Your task to perform on an android device: Open Youtube and go to "Your channel" Image 0: 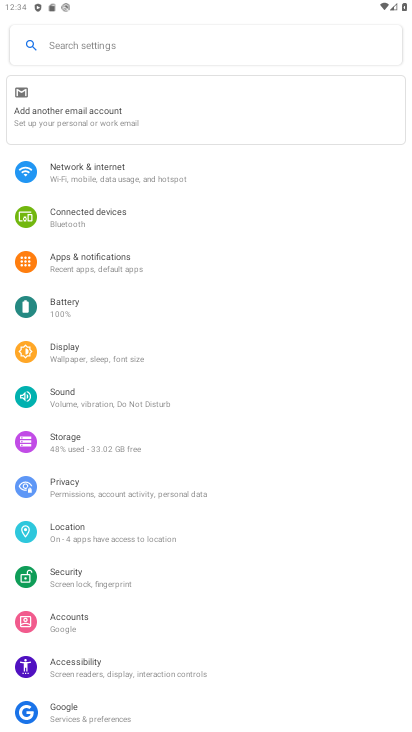
Step 0: press home button
Your task to perform on an android device: Open Youtube and go to "Your channel" Image 1: 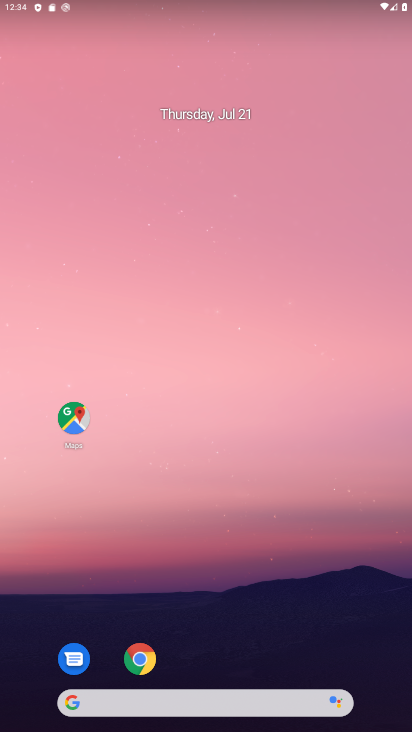
Step 1: drag from (176, 701) to (369, 22)
Your task to perform on an android device: Open Youtube and go to "Your channel" Image 2: 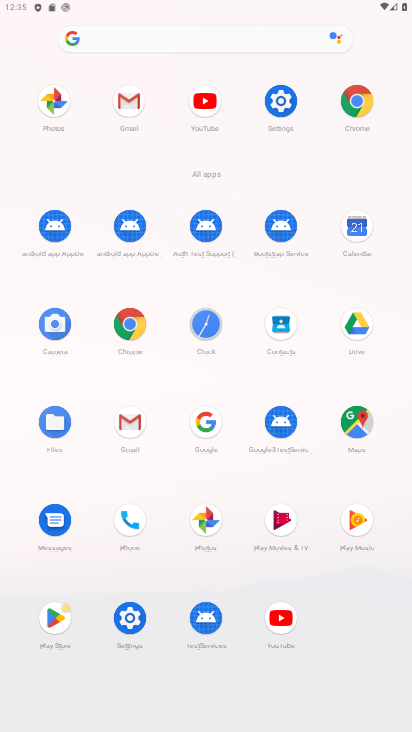
Step 2: click (202, 98)
Your task to perform on an android device: Open Youtube and go to "Your channel" Image 3: 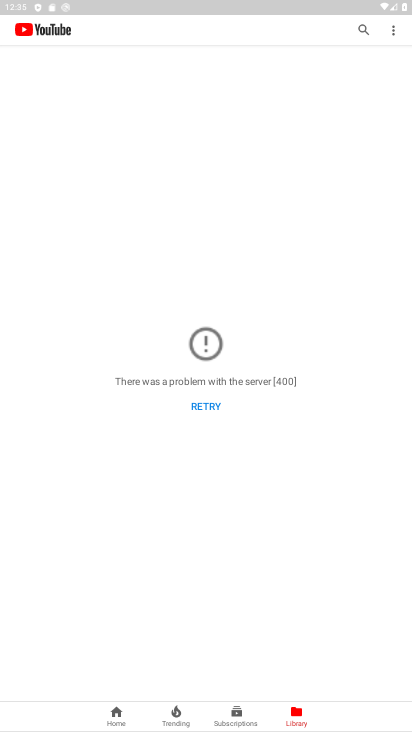
Step 3: click (200, 403)
Your task to perform on an android device: Open Youtube and go to "Your channel" Image 4: 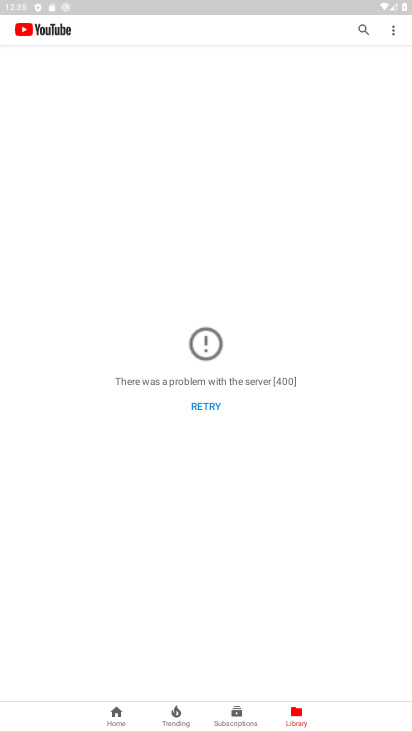
Step 4: click (200, 403)
Your task to perform on an android device: Open Youtube and go to "Your channel" Image 5: 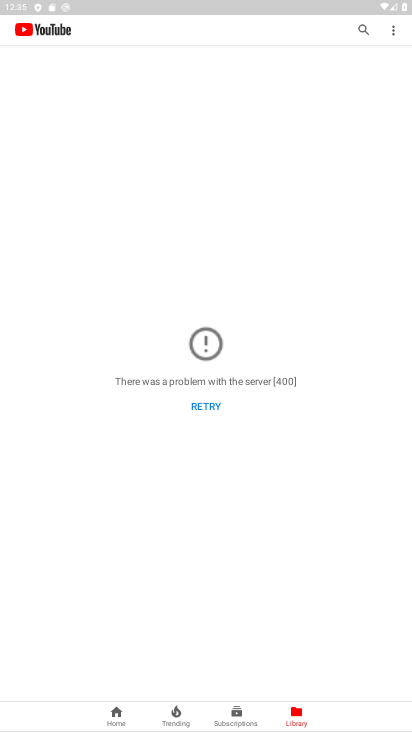
Step 5: click (200, 403)
Your task to perform on an android device: Open Youtube and go to "Your channel" Image 6: 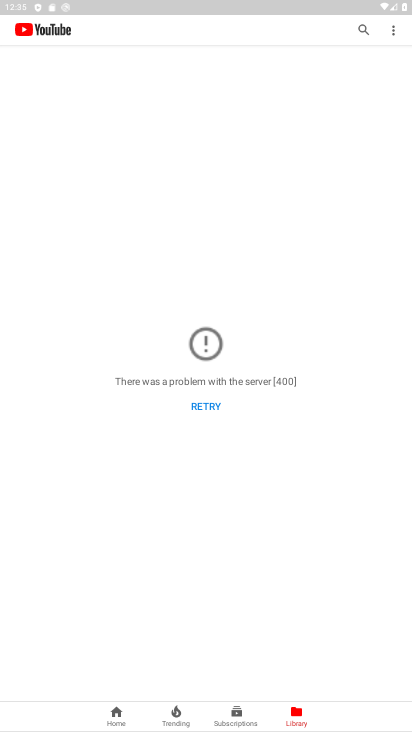
Step 6: click (200, 403)
Your task to perform on an android device: Open Youtube and go to "Your channel" Image 7: 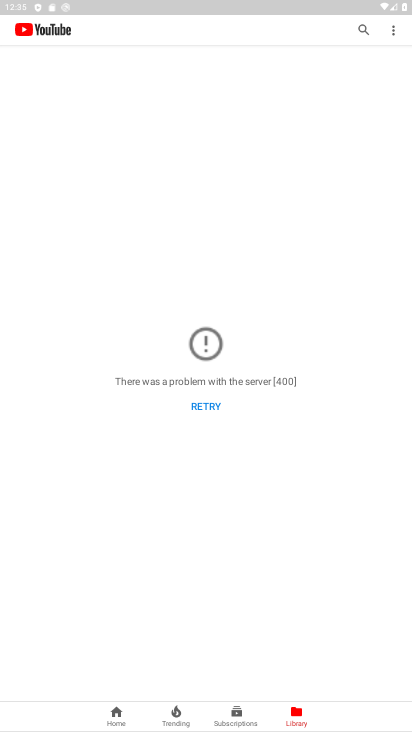
Step 7: click (200, 403)
Your task to perform on an android device: Open Youtube and go to "Your channel" Image 8: 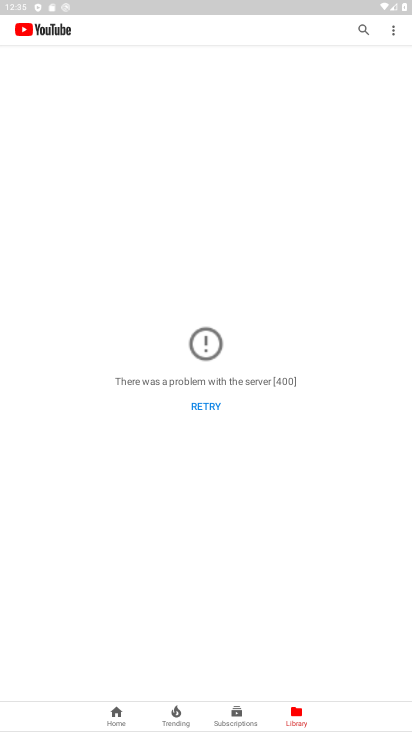
Step 8: task complete